Your task to perform on an android device: add a contact Image 0: 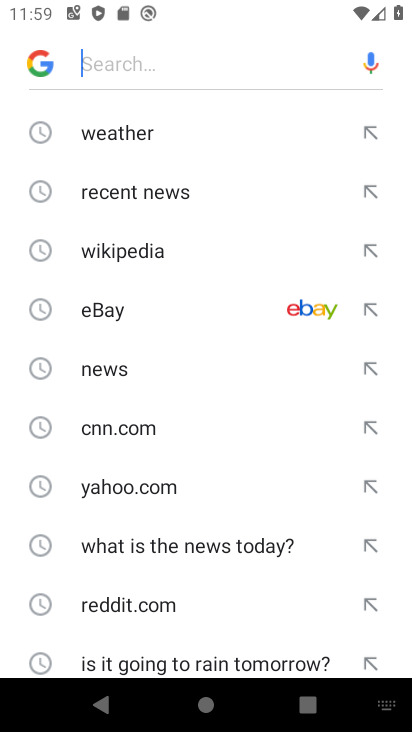
Step 0: press home button
Your task to perform on an android device: add a contact Image 1: 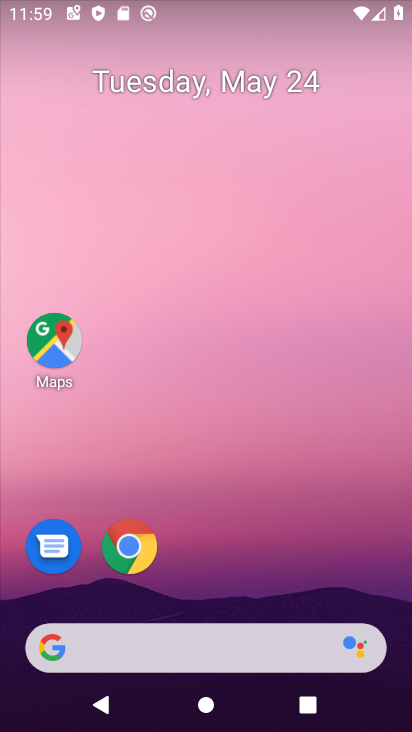
Step 1: drag from (254, 572) to (200, 169)
Your task to perform on an android device: add a contact Image 2: 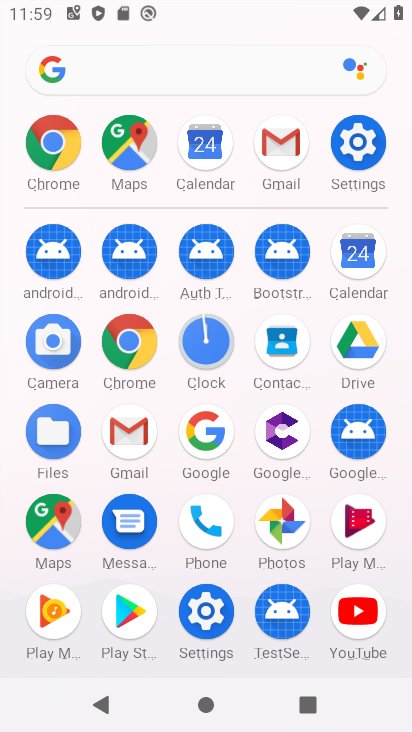
Step 2: click (282, 350)
Your task to perform on an android device: add a contact Image 3: 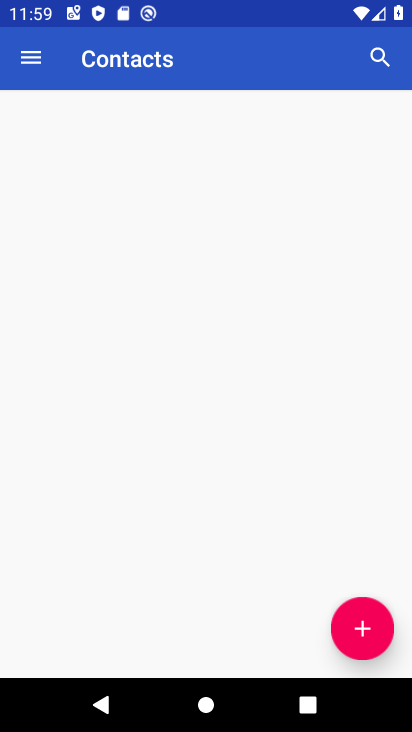
Step 3: click (361, 631)
Your task to perform on an android device: add a contact Image 4: 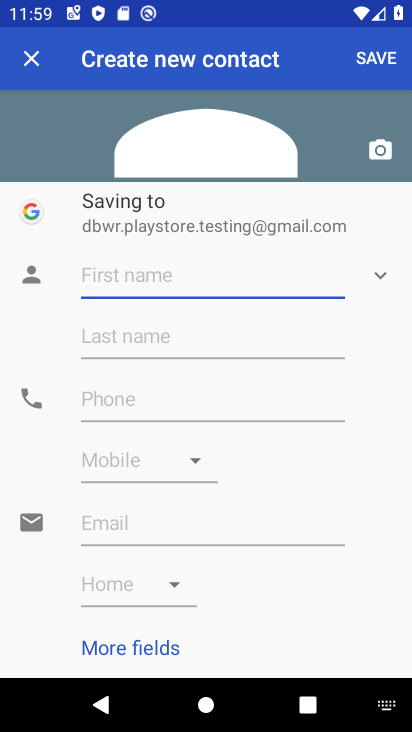
Step 4: type "nkjnjkn"
Your task to perform on an android device: add a contact Image 5: 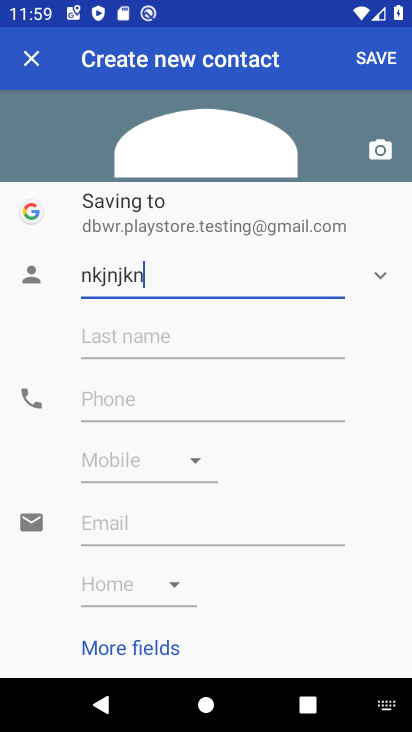
Step 5: click (296, 399)
Your task to perform on an android device: add a contact Image 6: 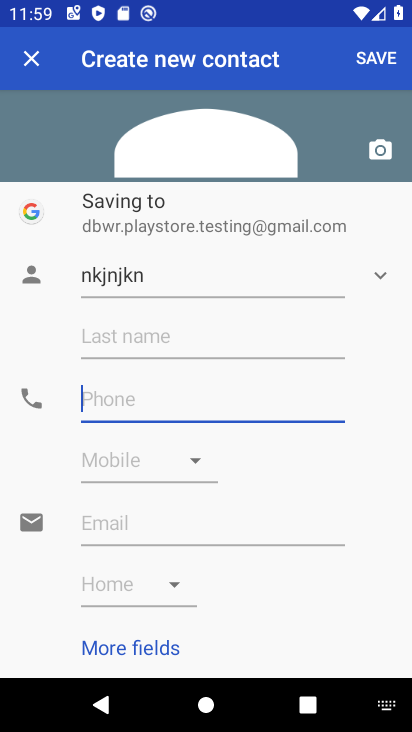
Step 6: type "82928829"
Your task to perform on an android device: add a contact Image 7: 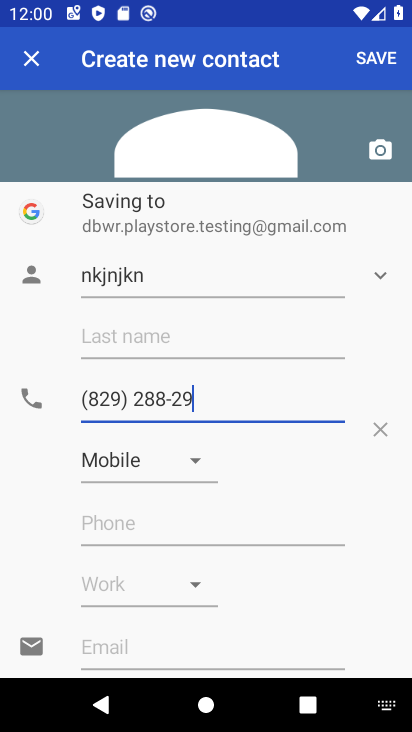
Step 7: click (392, 60)
Your task to perform on an android device: add a contact Image 8: 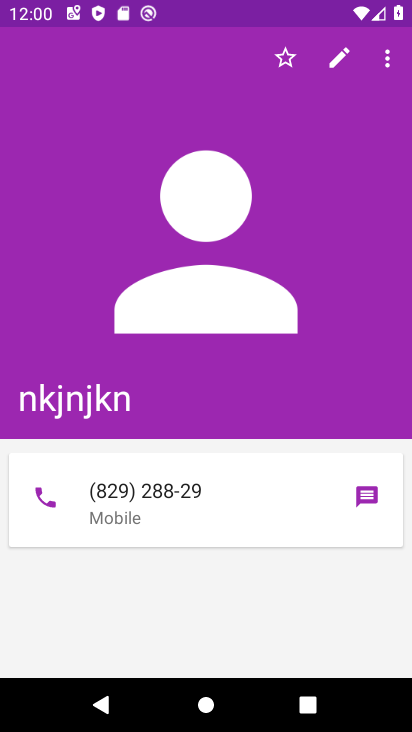
Step 8: task complete